Your task to perform on an android device: toggle sleep mode Image 0: 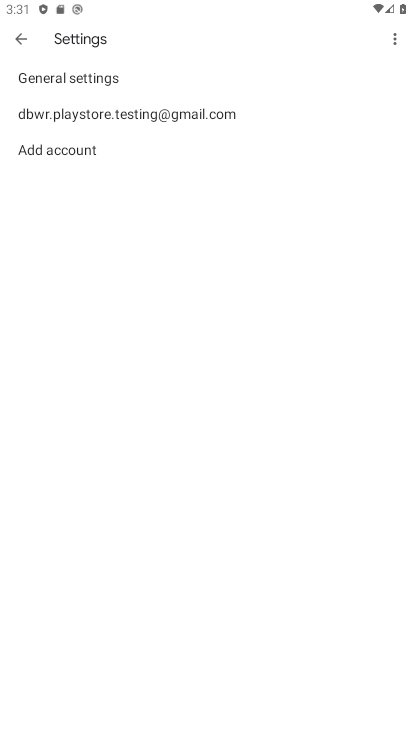
Step 0: press home button
Your task to perform on an android device: toggle sleep mode Image 1: 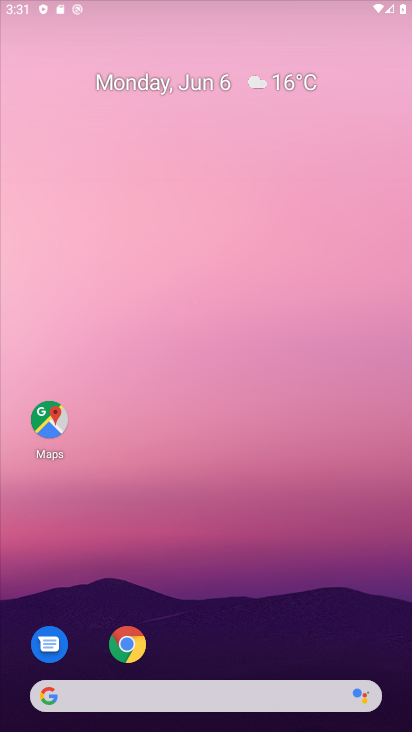
Step 1: drag from (139, 26) to (131, 619)
Your task to perform on an android device: toggle sleep mode Image 2: 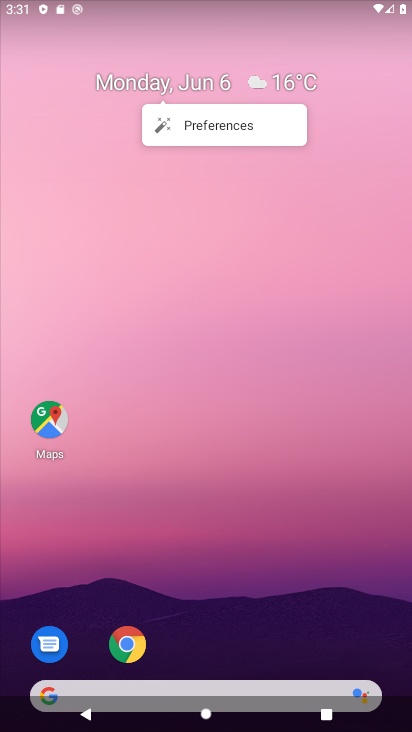
Step 2: drag from (186, 9) to (183, 519)
Your task to perform on an android device: toggle sleep mode Image 3: 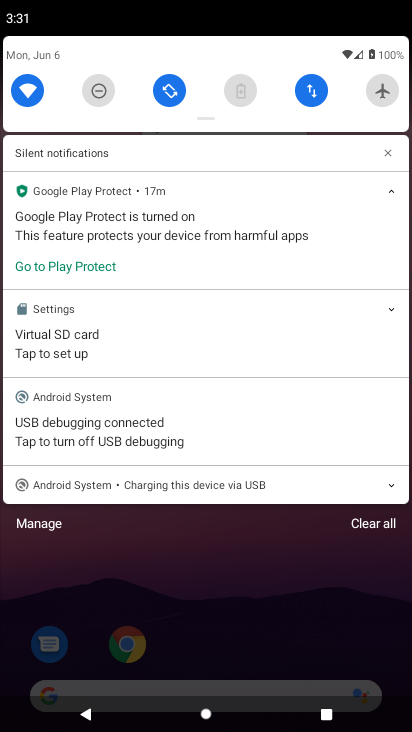
Step 3: drag from (197, 117) to (206, 489)
Your task to perform on an android device: toggle sleep mode Image 4: 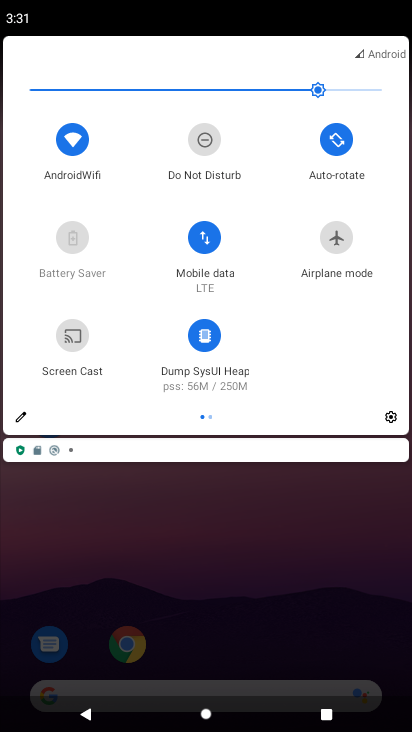
Step 4: click (14, 420)
Your task to perform on an android device: toggle sleep mode Image 5: 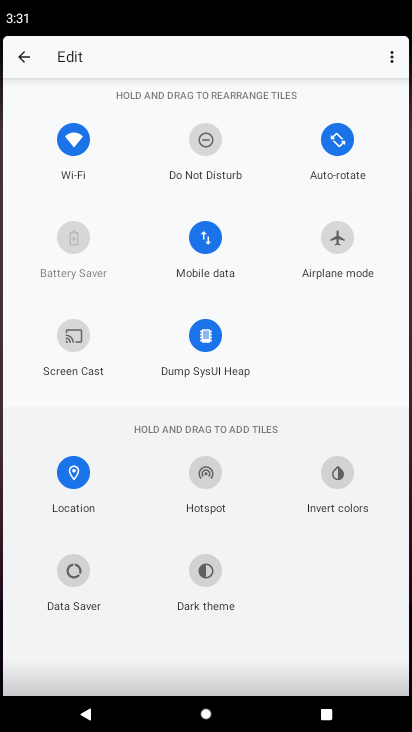
Step 5: task complete